Your task to perform on an android device: Open CNN.com Image 0: 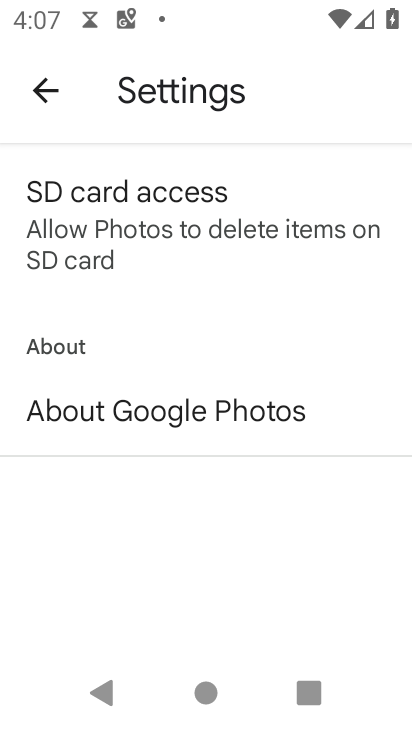
Step 0: press home button
Your task to perform on an android device: Open CNN.com Image 1: 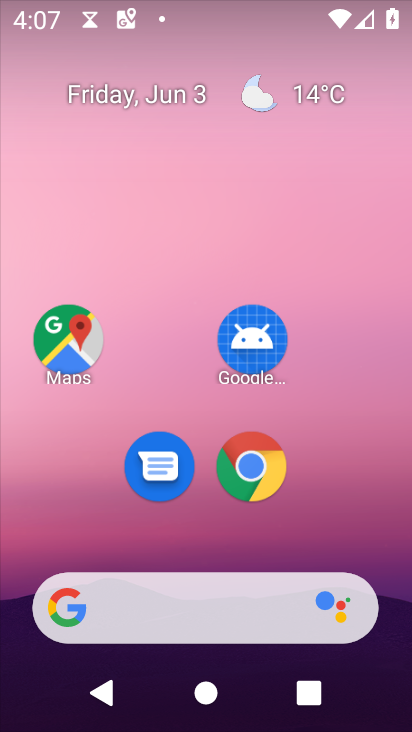
Step 1: click (241, 456)
Your task to perform on an android device: Open CNN.com Image 2: 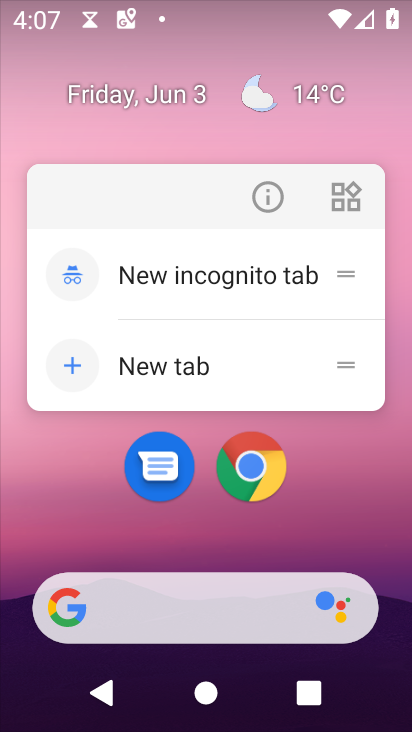
Step 2: click (238, 454)
Your task to perform on an android device: Open CNN.com Image 3: 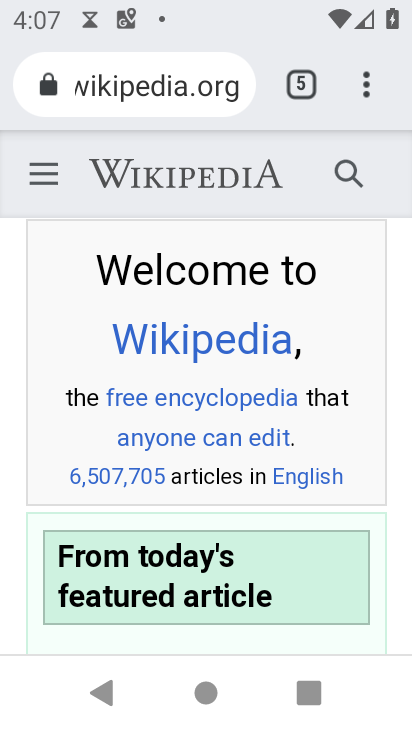
Step 3: click (168, 92)
Your task to perform on an android device: Open CNN.com Image 4: 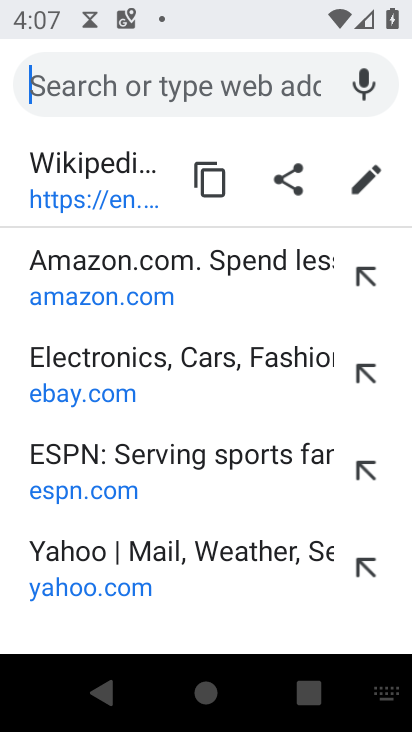
Step 4: type "cnn.com"
Your task to perform on an android device: Open CNN.com Image 5: 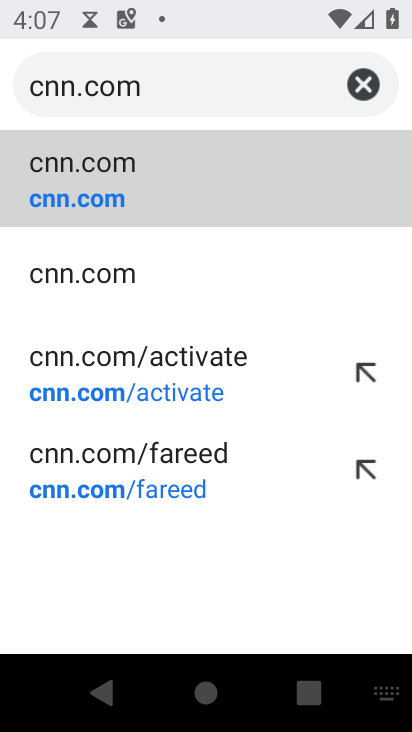
Step 5: click (141, 201)
Your task to perform on an android device: Open CNN.com Image 6: 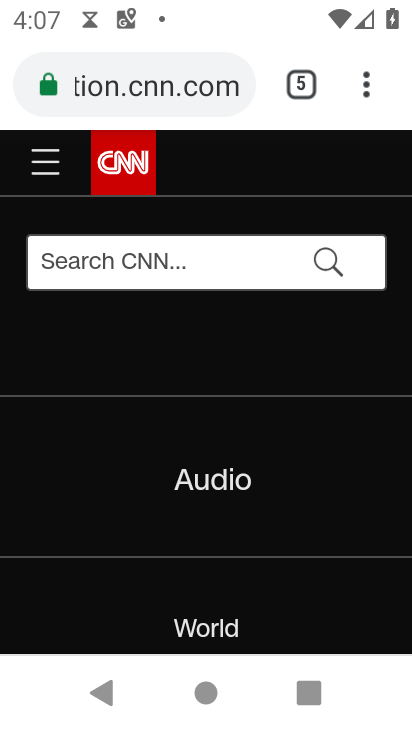
Step 6: task complete